Your task to perform on an android device: What's the weather? Image 0: 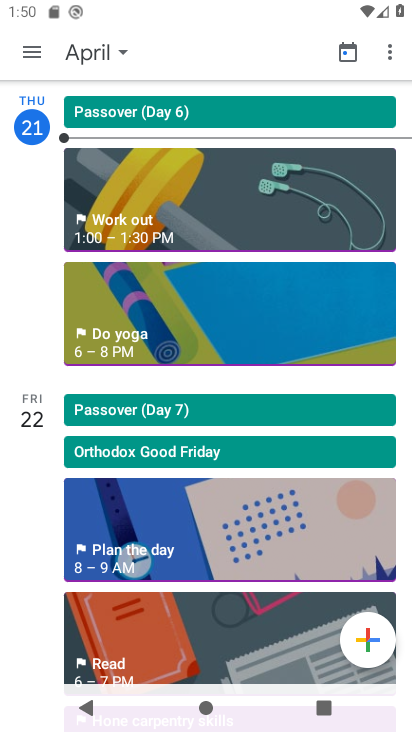
Step 0: press home button
Your task to perform on an android device: What's the weather? Image 1: 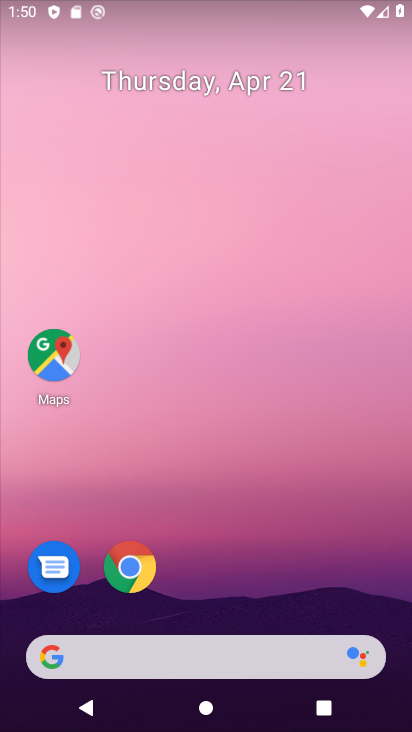
Step 1: drag from (40, 230) to (402, 303)
Your task to perform on an android device: What's the weather? Image 2: 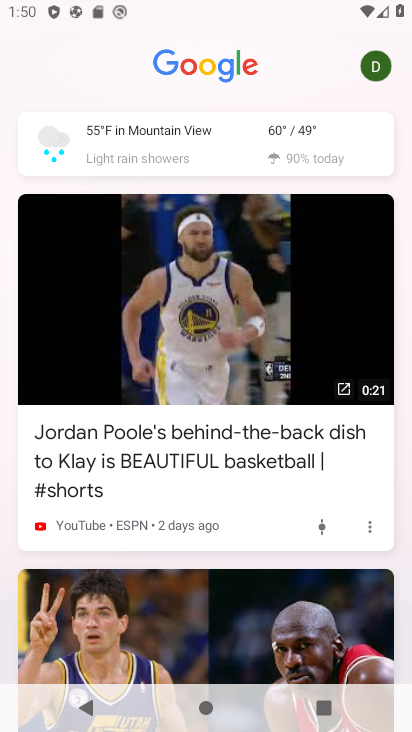
Step 2: click (272, 130)
Your task to perform on an android device: What's the weather? Image 3: 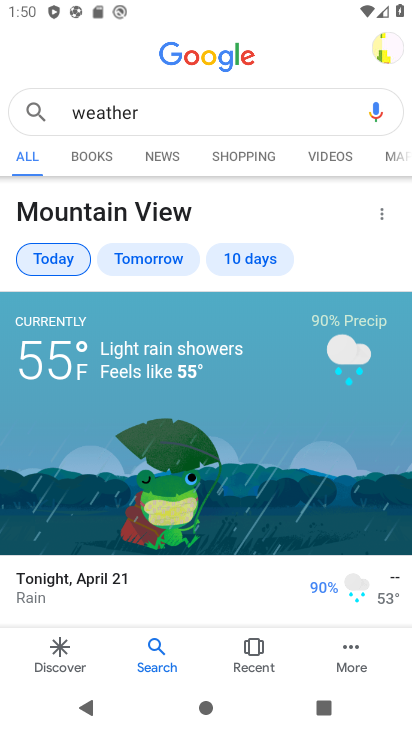
Step 3: task complete